Your task to perform on an android device: Open the web browser Image 0: 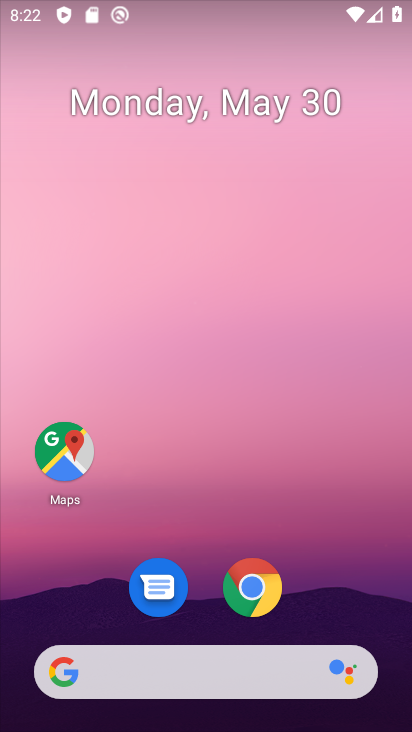
Step 0: click (250, 582)
Your task to perform on an android device: Open the web browser Image 1: 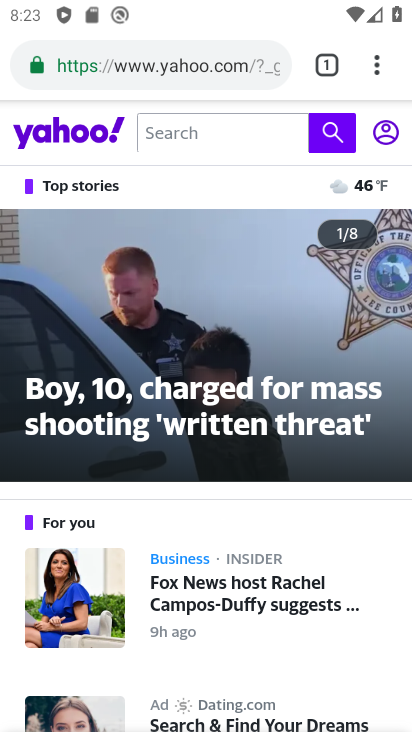
Step 1: task complete